Your task to perform on an android device: Open the Play Movies app and select the watchlist tab. Image 0: 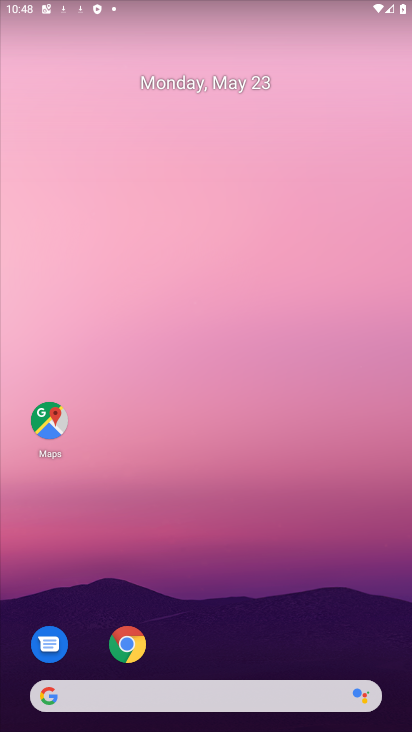
Step 0: drag from (281, 702) to (222, 238)
Your task to perform on an android device: Open the Play Movies app and select the watchlist tab. Image 1: 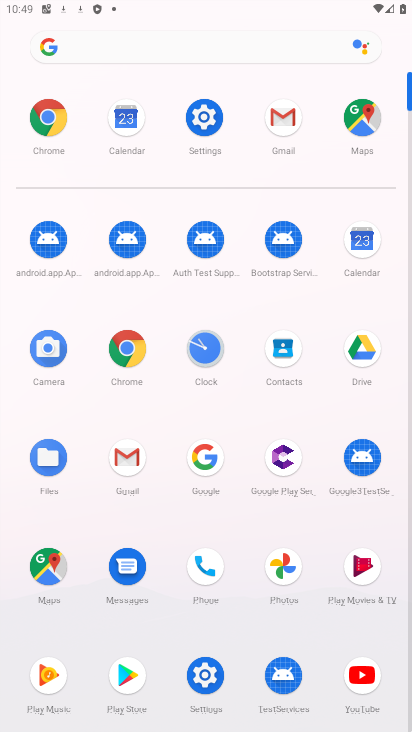
Step 1: click (362, 572)
Your task to perform on an android device: Open the Play Movies app and select the watchlist tab. Image 2: 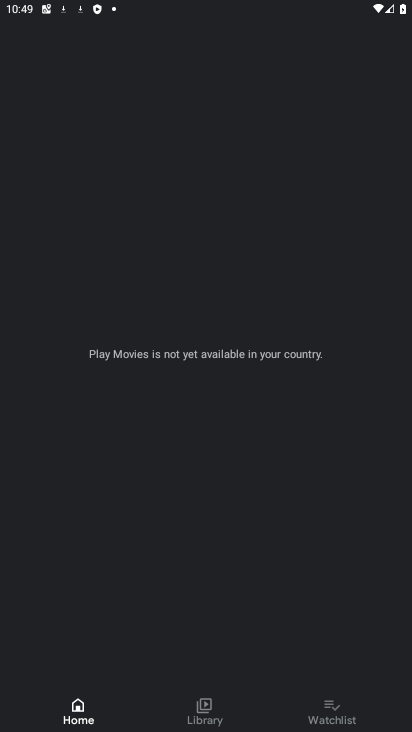
Step 2: click (347, 727)
Your task to perform on an android device: Open the Play Movies app and select the watchlist tab. Image 3: 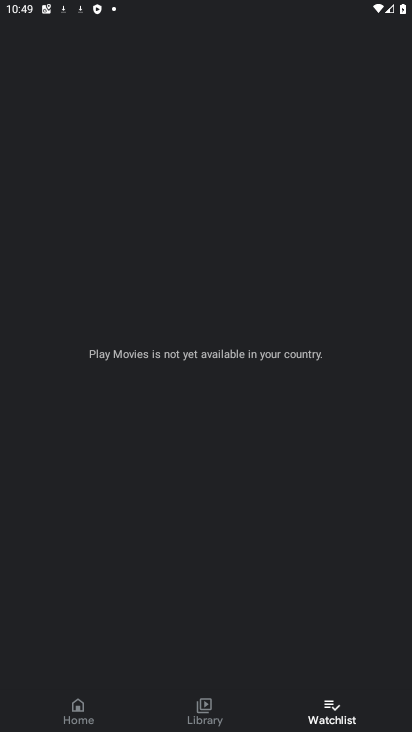
Step 3: task complete